Your task to perform on an android device: Play the last video I watched on Youtube Image 0: 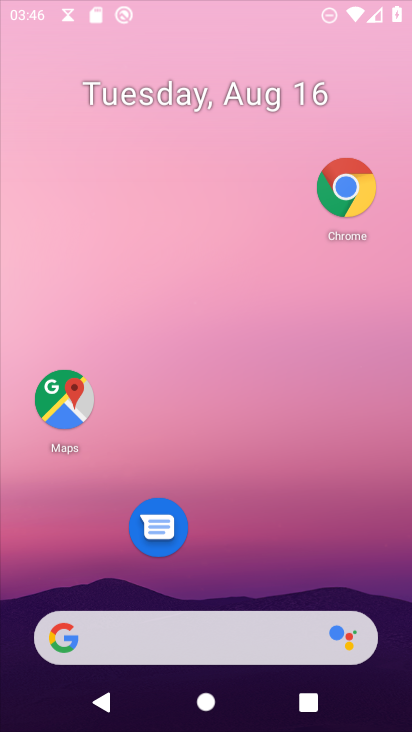
Step 0: press home button
Your task to perform on an android device: Play the last video I watched on Youtube Image 1: 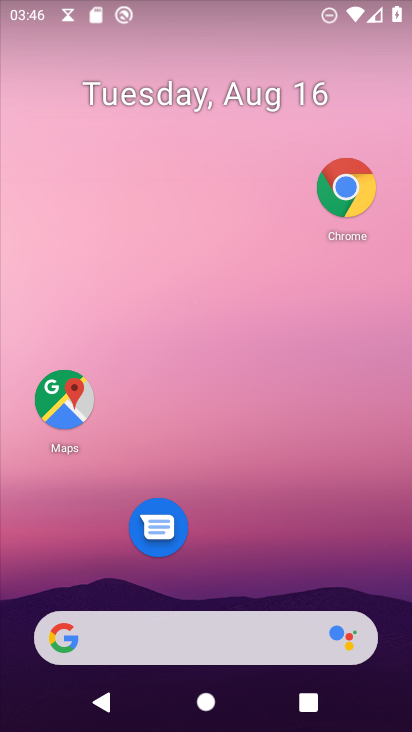
Step 1: drag from (225, 585) to (204, 95)
Your task to perform on an android device: Play the last video I watched on Youtube Image 2: 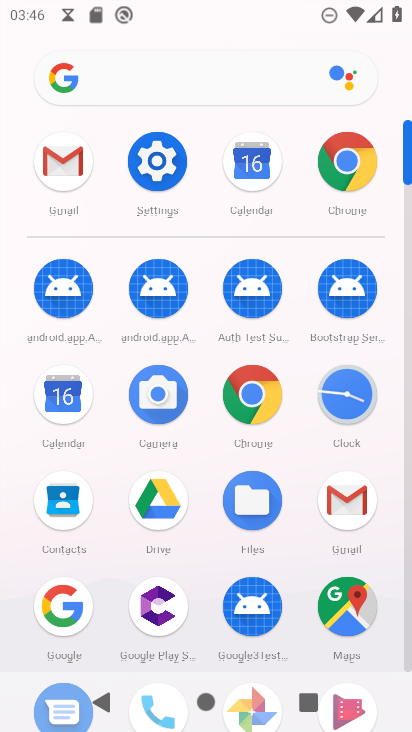
Step 2: drag from (197, 626) to (184, 199)
Your task to perform on an android device: Play the last video I watched on Youtube Image 3: 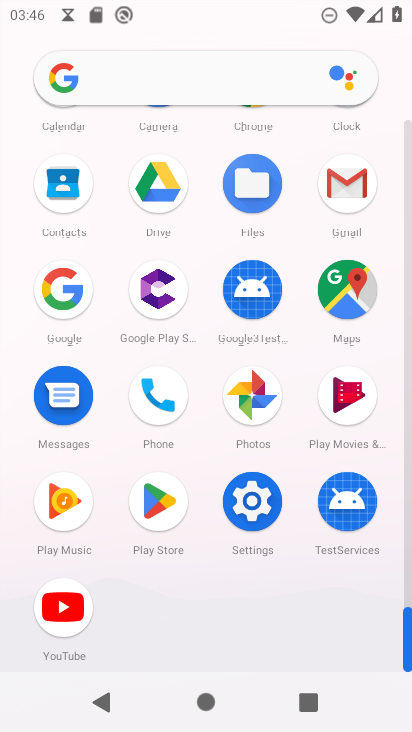
Step 3: click (57, 602)
Your task to perform on an android device: Play the last video I watched on Youtube Image 4: 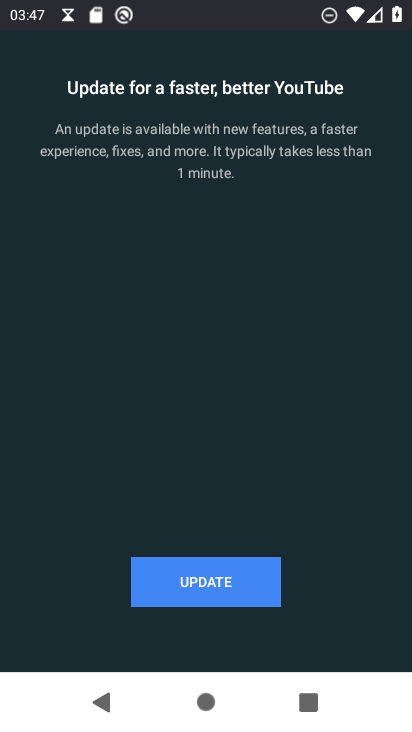
Step 4: click (210, 577)
Your task to perform on an android device: Play the last video I watched on Youtube Image 5: 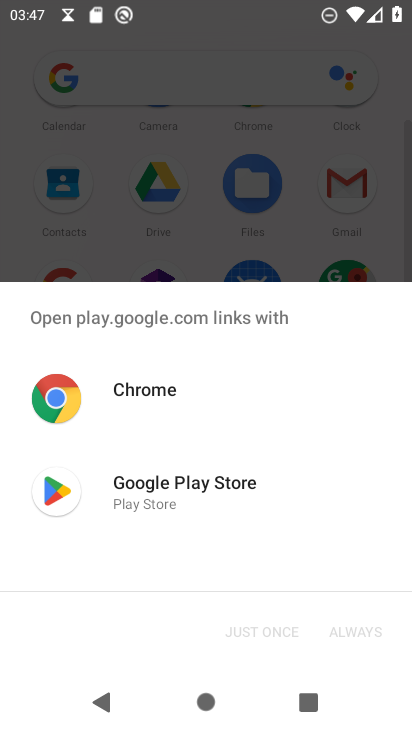
Step 5: click (134, 490)
Your task to perform on an android device: Play the last video I watched on Youtube Image 6: 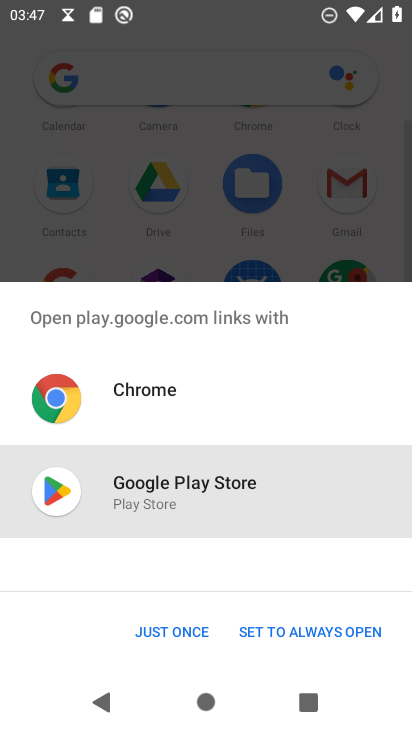
Step 6: click (172, 631)
Your task to perform on an android device: Play the last video I watched on Youtube Image 7: 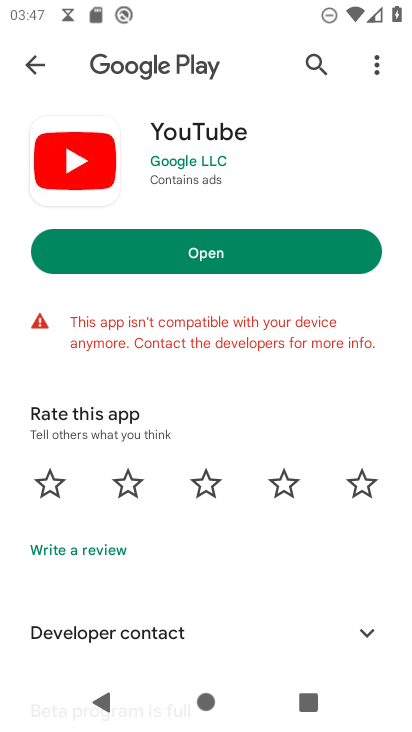
Step 7: task complete